Your task to perform on an android device: star an email in the gmail app Image 0: 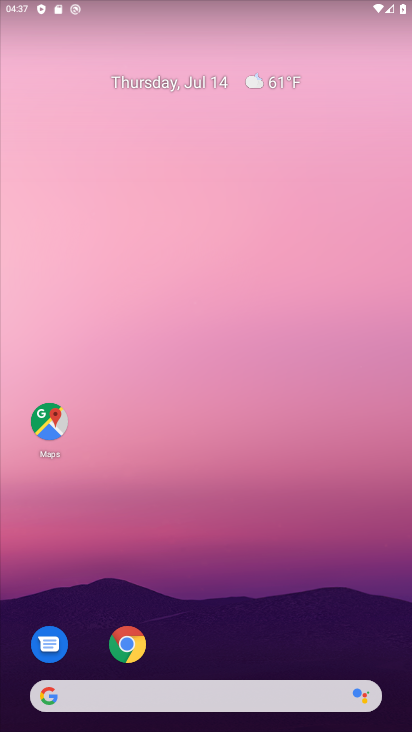
Step 0: press home button
Your task to perform on an android device: star an email in the gmail app Image 1: 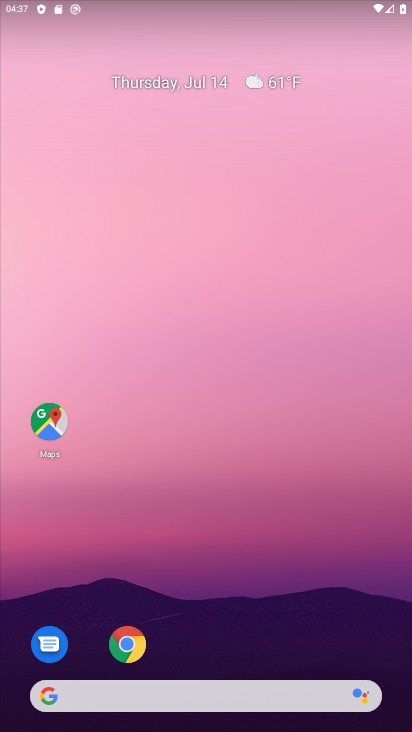
Step 1: drag from (319, 603) to (234, 26)
Your task to perform on an android device: star an email in the gmail app Image 2: 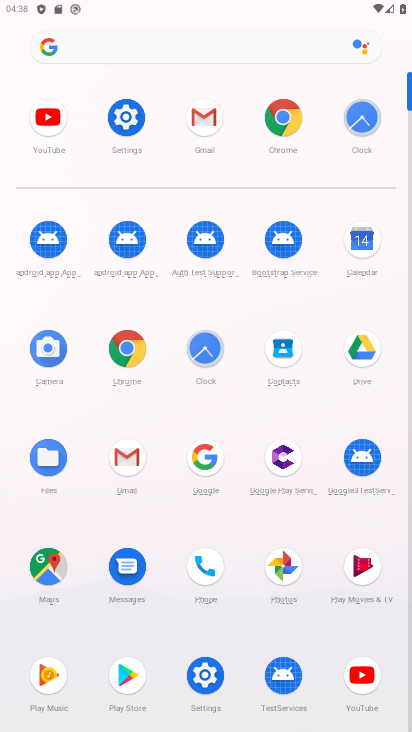
Step 2: click (113, 478)
Your task to perform on an android device: star an email in the gmail app Image 3: 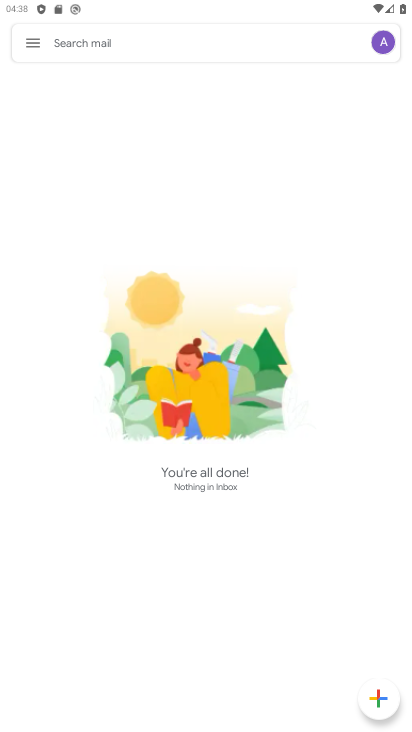
Step 3: task complete